Your task to perform on an android device: empty trash in google photos Image 0: 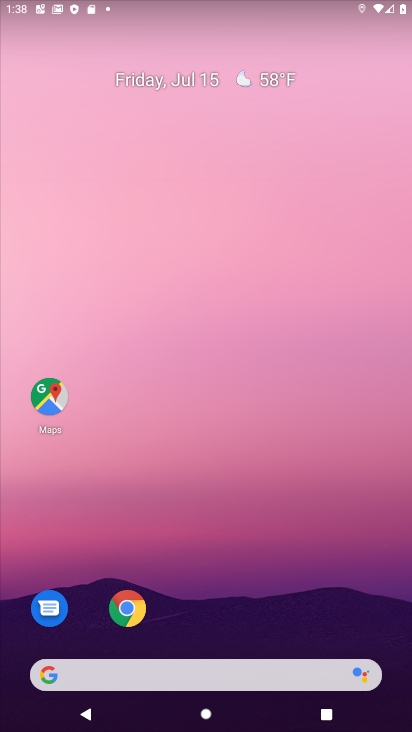
Step 0: drag from (210, 588) to (156, 159)
Your task to perform on an android device: empty trash in google photos Image 1: 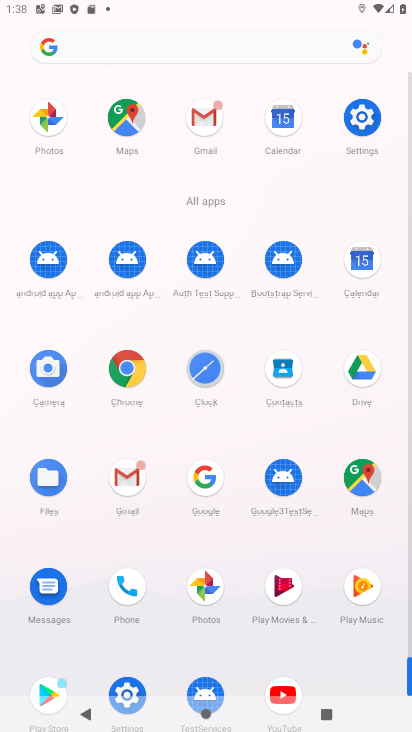
Step 1: click (197, 591)
Your task to perform on an android device: empty trash in google photos Image 2: 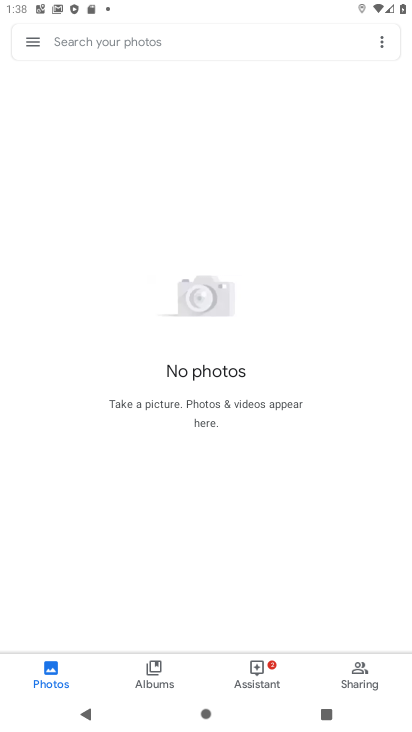
Step 2: click (36, 34)
Your task to perform on an android device: empty trash in google photos Image 3: 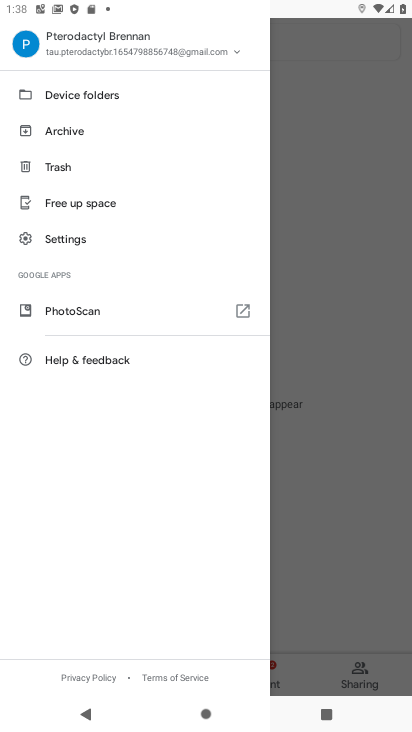
Step 3: click (33, 163)
Your task to perform on an android device: empty trash in google photos Image 4: 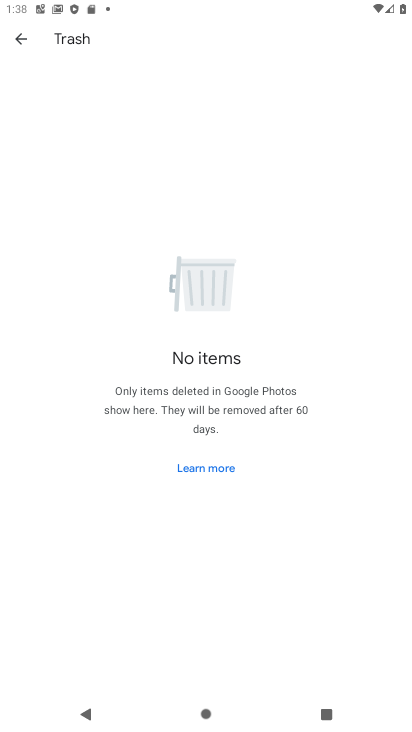
Step 4: task complete